Your task to perform on an android device: toggle priority inbox in the gmail app Image 0: 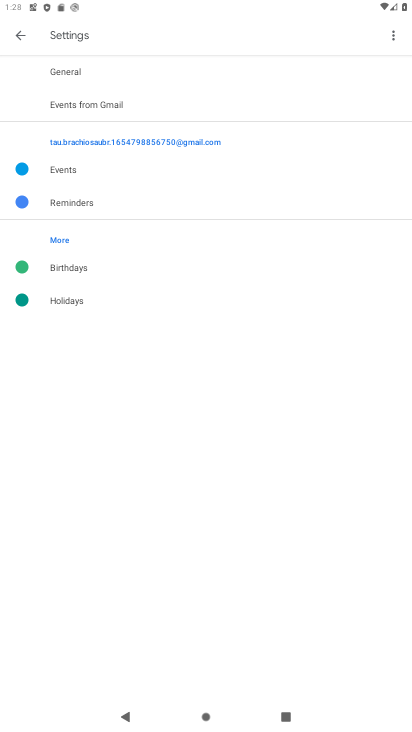
Step 0: drag from (244, 492) to (259, 276)
Your task to perform on an android device: toggle priority inbox in the gmail app Image 1: 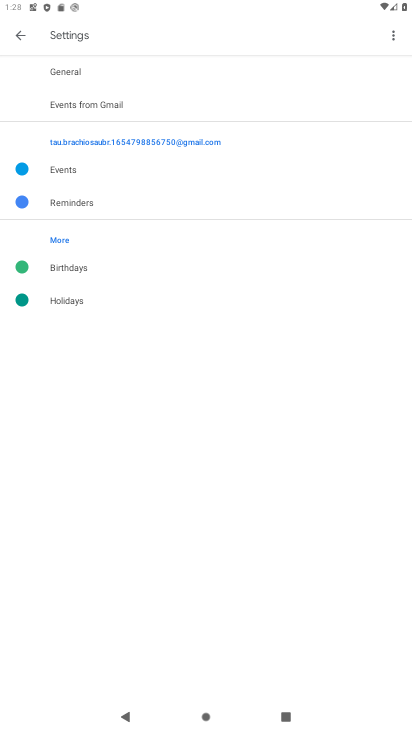
Step 1: press home button
Your task to perform on an android device: toggle priority inbox in the gmail app Image 2: 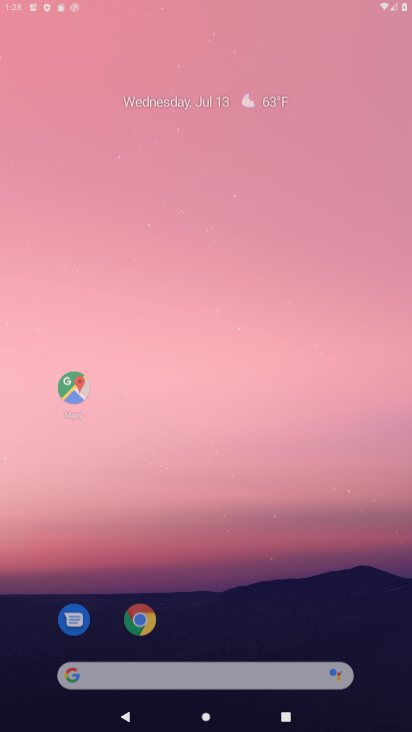
Step 2: drag from (173, 655) to (250, 102)
Your task to perform on an android device: toggle priority inbox in the gmail app Image 3: 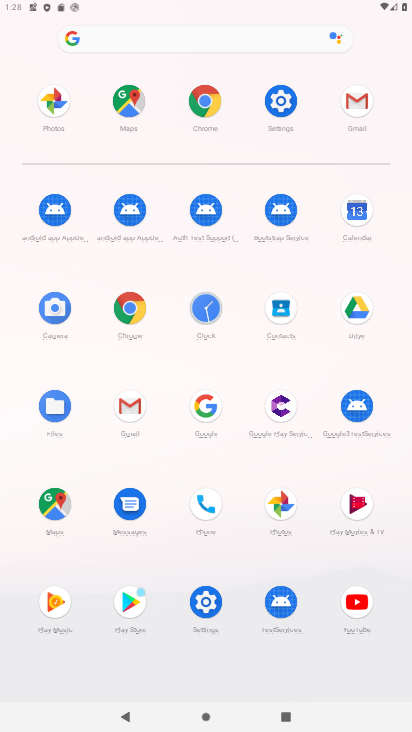
Step 3: drag from (240, 561) to (234, 303)
Your task to perform on an android device: toggle priority inbox in the gmail app Image 4: 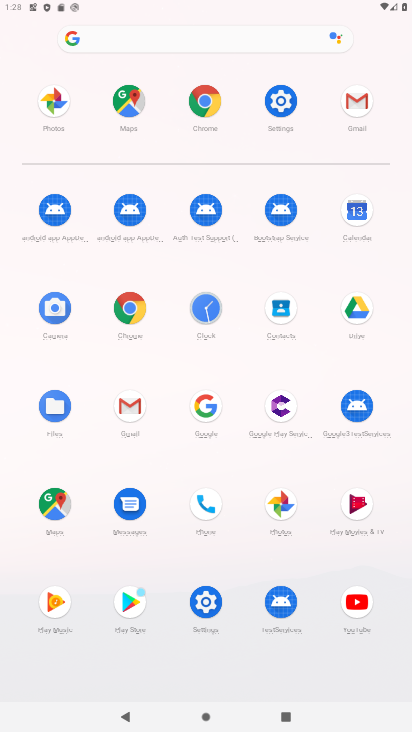
Step 4: click (128, 407)
Your task to perform on an android device: toggle priority inbox in the gmail app Image 5: 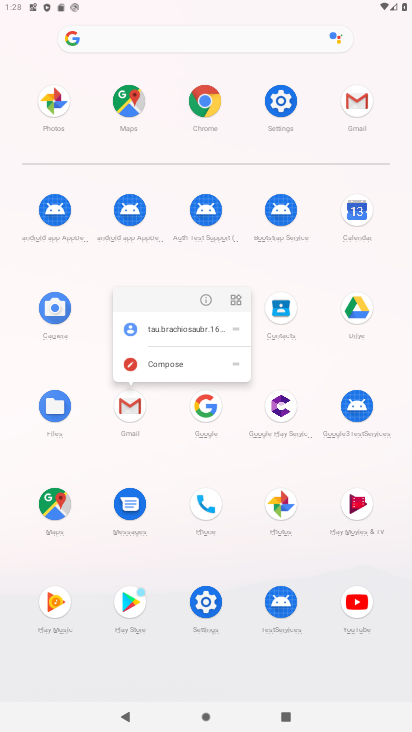
Step 5: click (197, 294)
Your task to perform on an android device: toggle priority inbox in the gmail app Image 6: 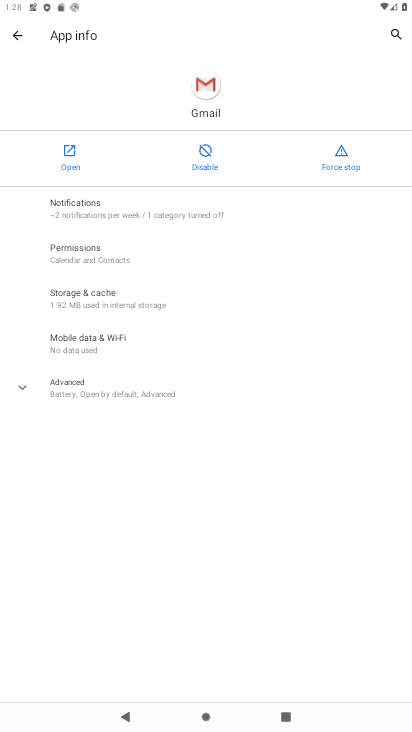
Step 6: click (57, 154)
Your task to perform on an android device: toggle priority inbox in the gmail app Image 7: 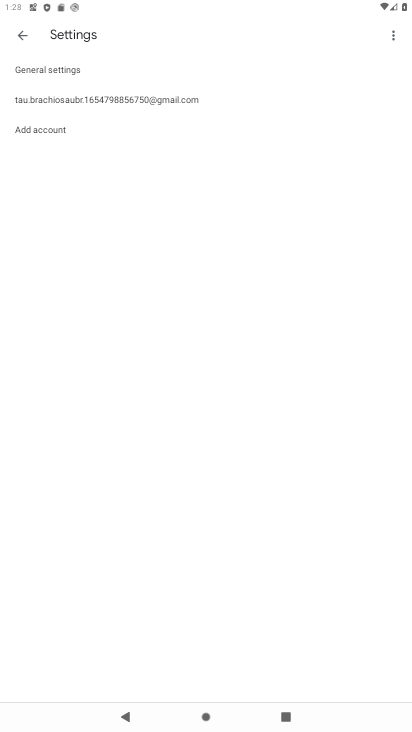
Step 7: click (125, 110)
Your task to perform on an android device: toggle priority inbox in the gmail app Image 8: 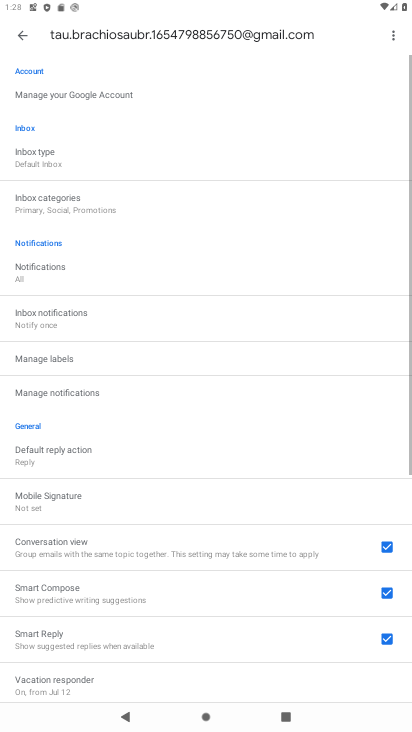
Step 8: click (59, 173)
Your task to perform on an android device: toggle priority inbox in the gmail app Image 9: 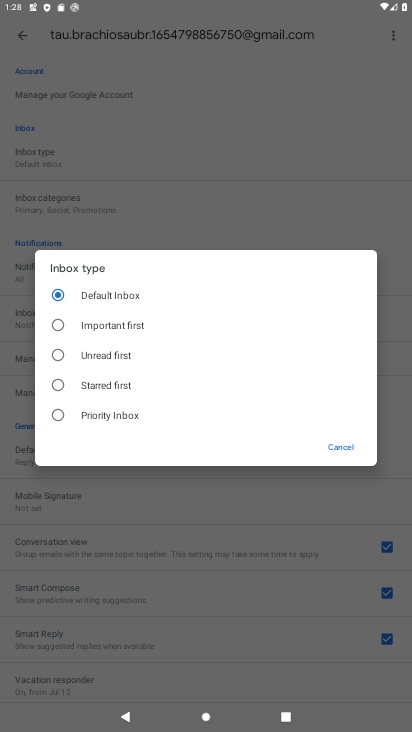
Step 9: click (61, 412)
Your task to perform on an android device: toggle priority inbox in the gmail app Image 10: 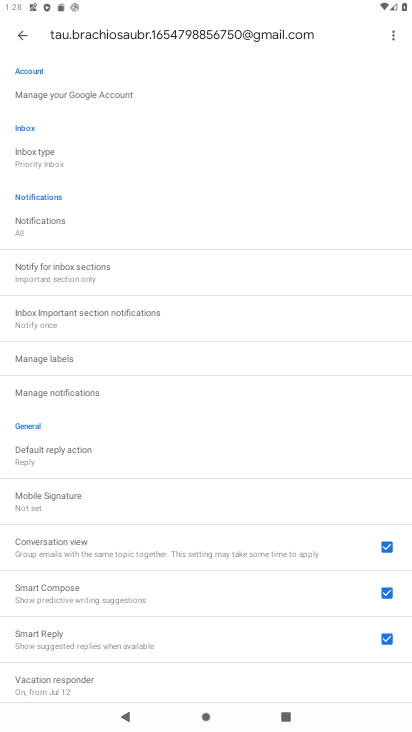
Step 10: task complete